Your task to perform on an android device: find which apps use the phone's location Image 0: 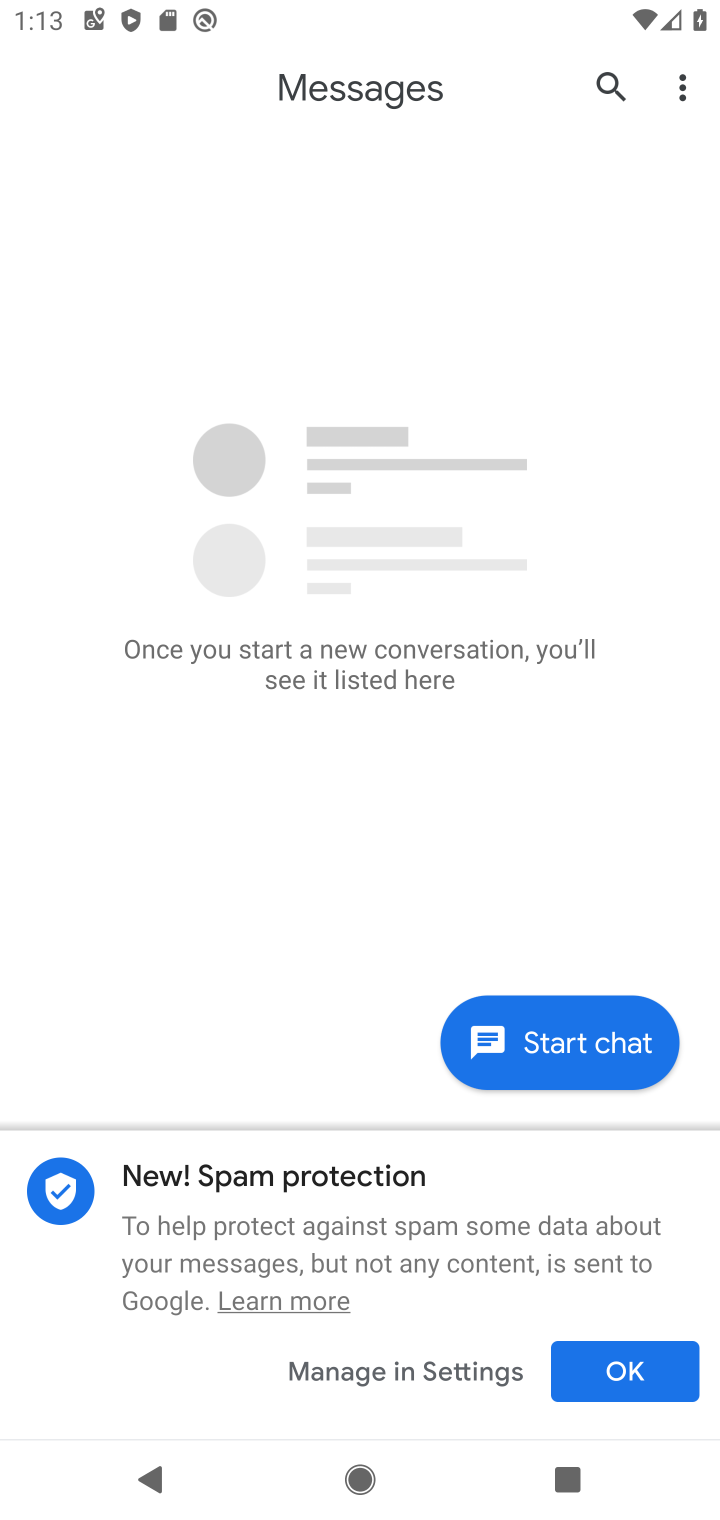
Step 0: press home button
Your task to perform on an android device: find which apps use the phone's location Image 1: 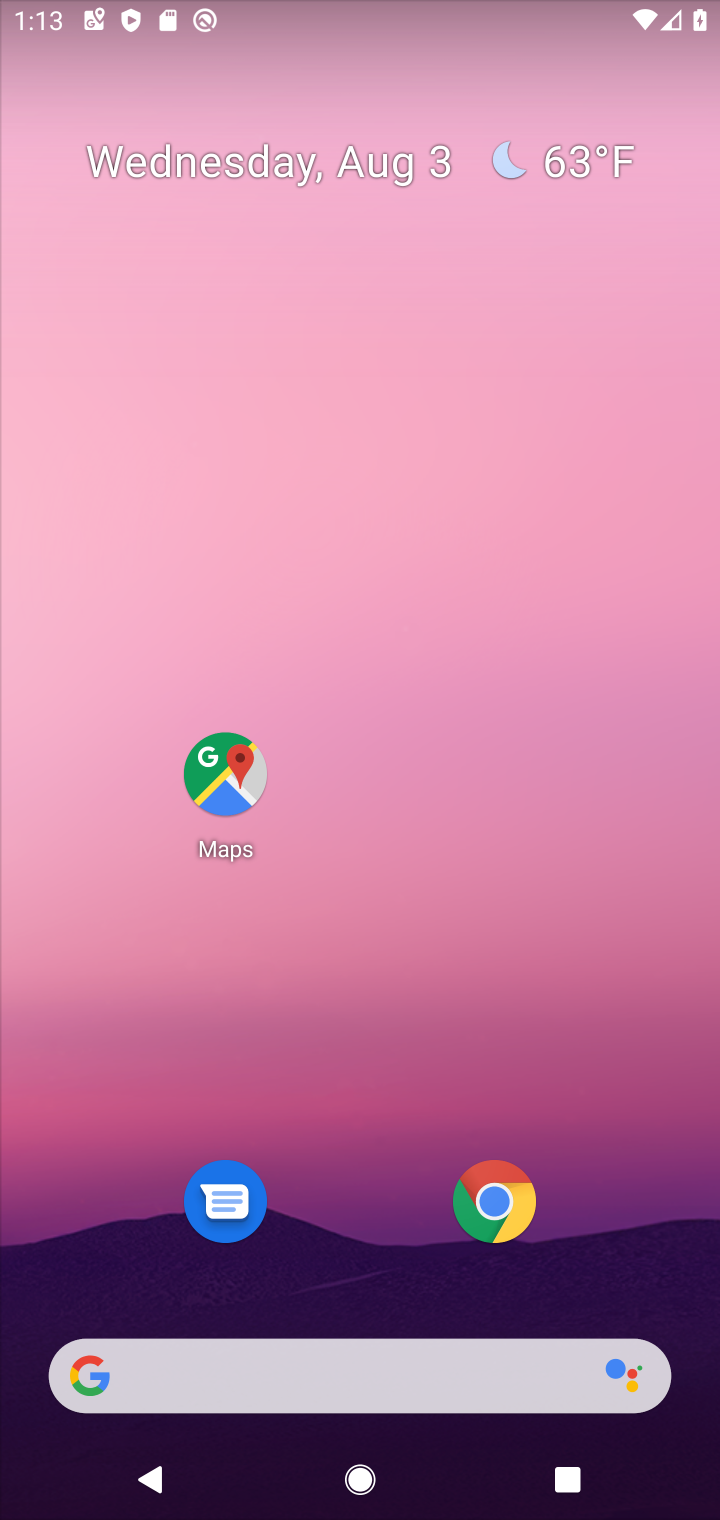
Step 1: drag from (416, 1043) to (604, 87)
Your task to perform on an android device: find which apps use the phone's location Image 2: 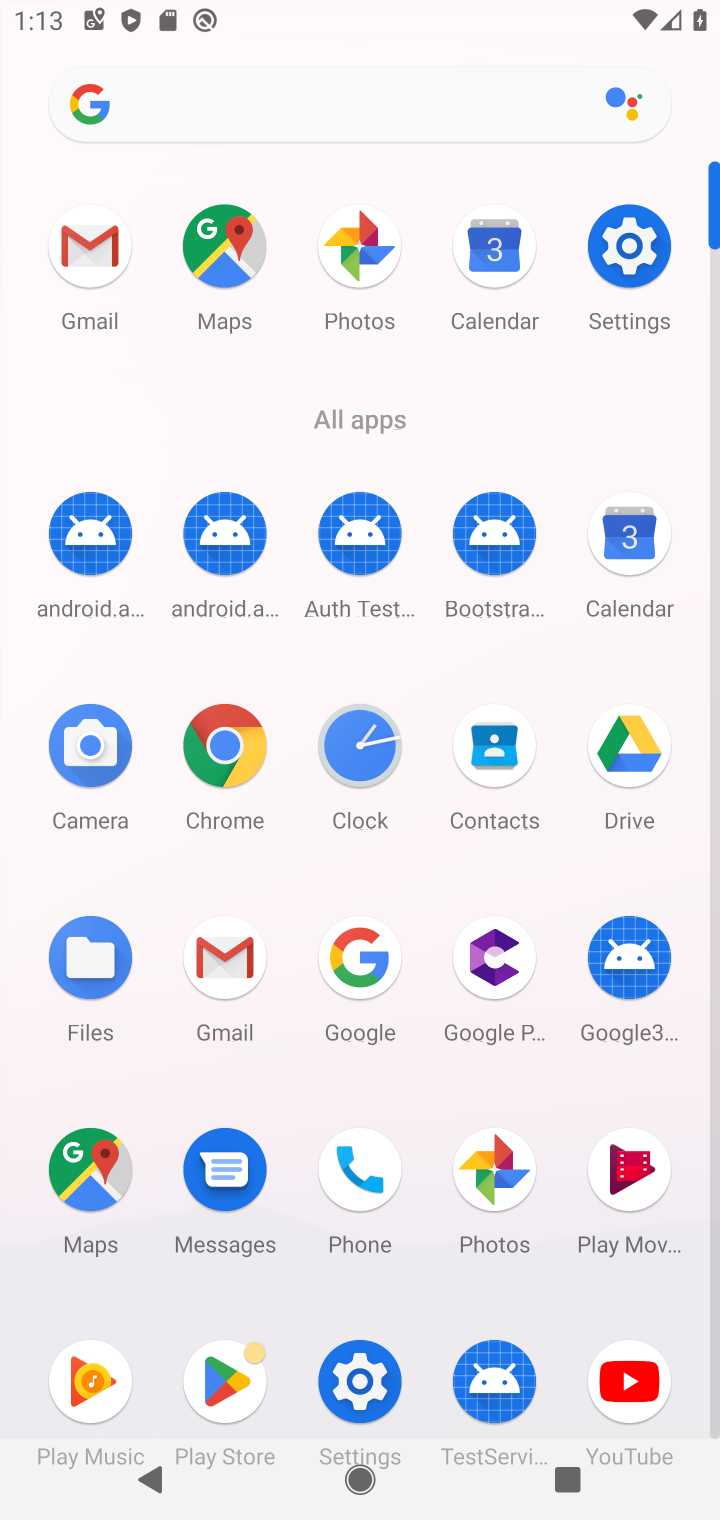
Step 2: click (621, 261)
Your task to perform on an android device: find which apps use the phone's location Image 3: 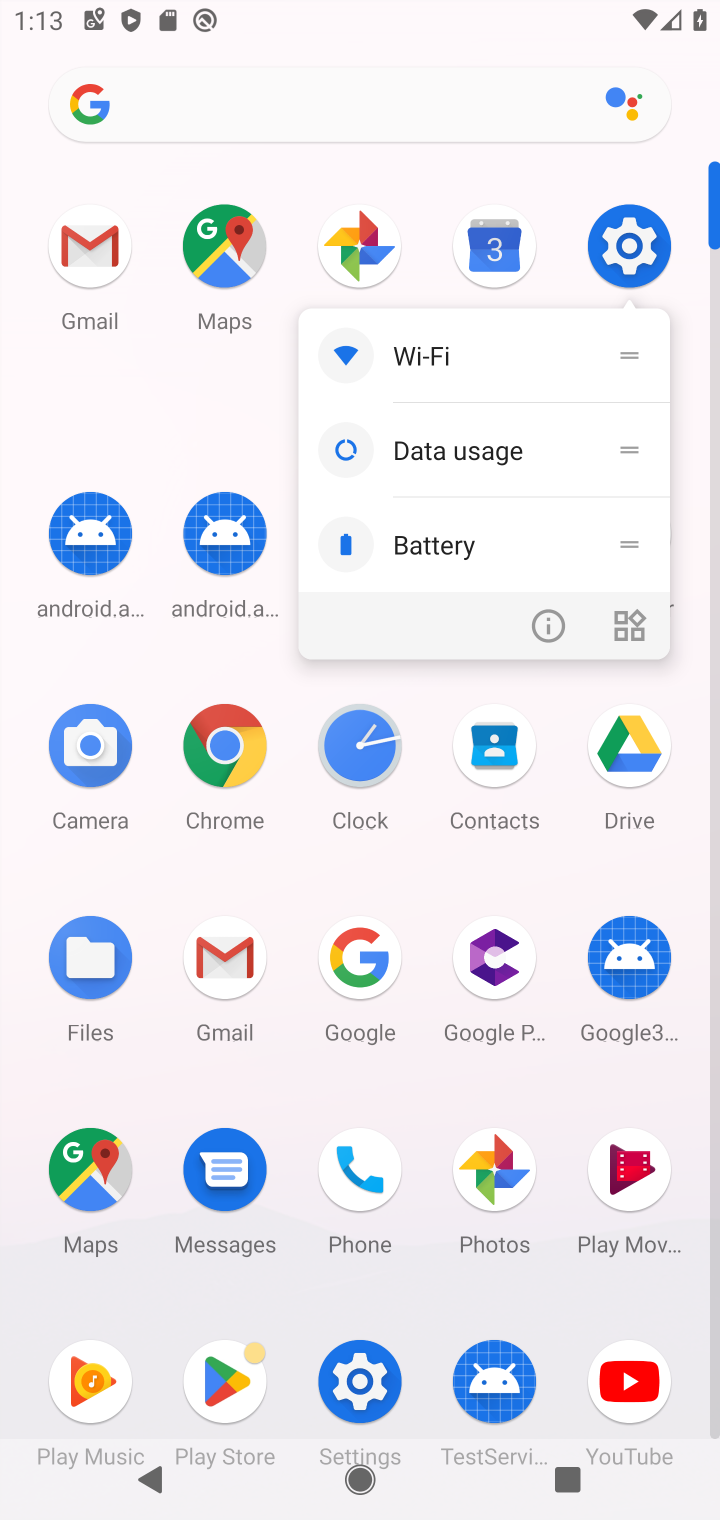
Step 3: click (643, 229)
Your task to perform on an android device: find which apps use the phone's location Image 4: 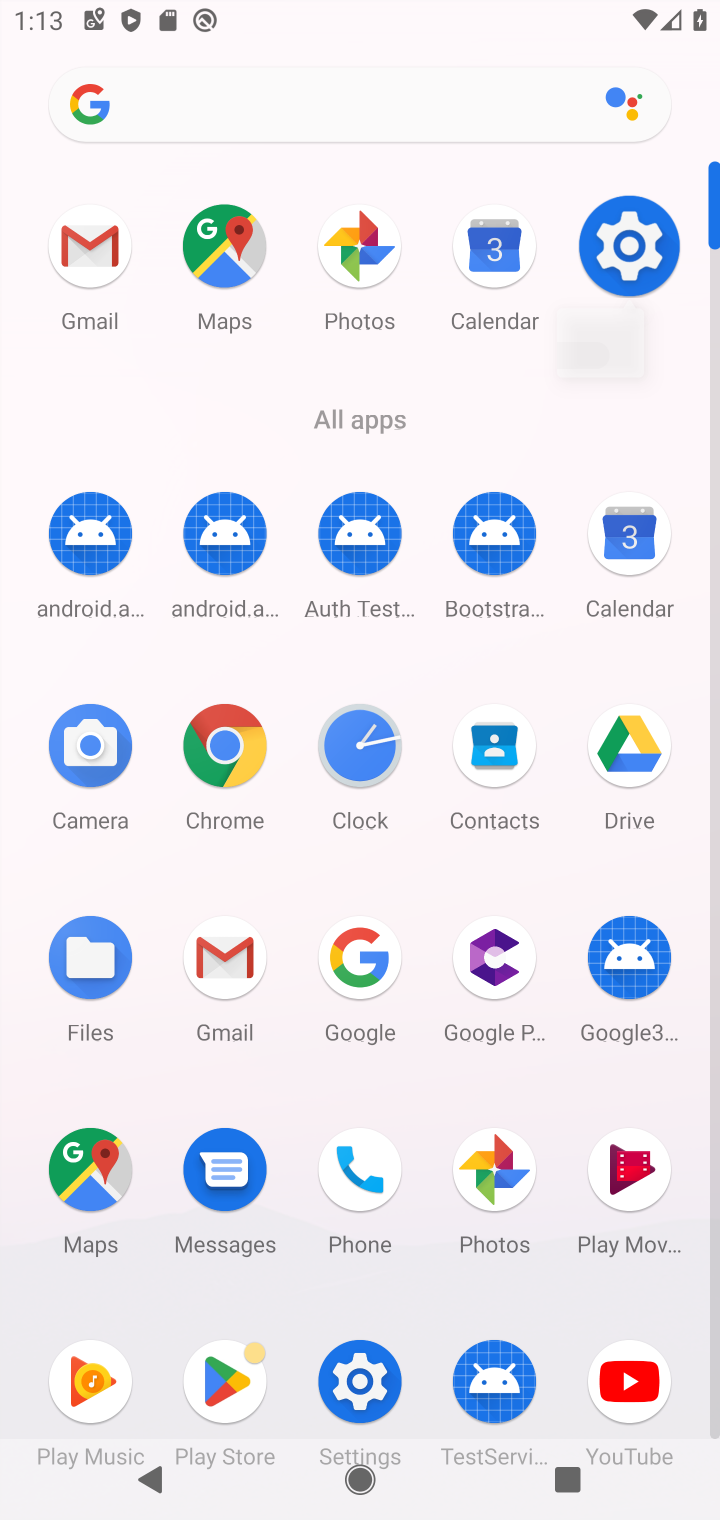
Step 4: click (643, 229)
Your task to perform on an android device: find which apps use the phone's location Image 5: 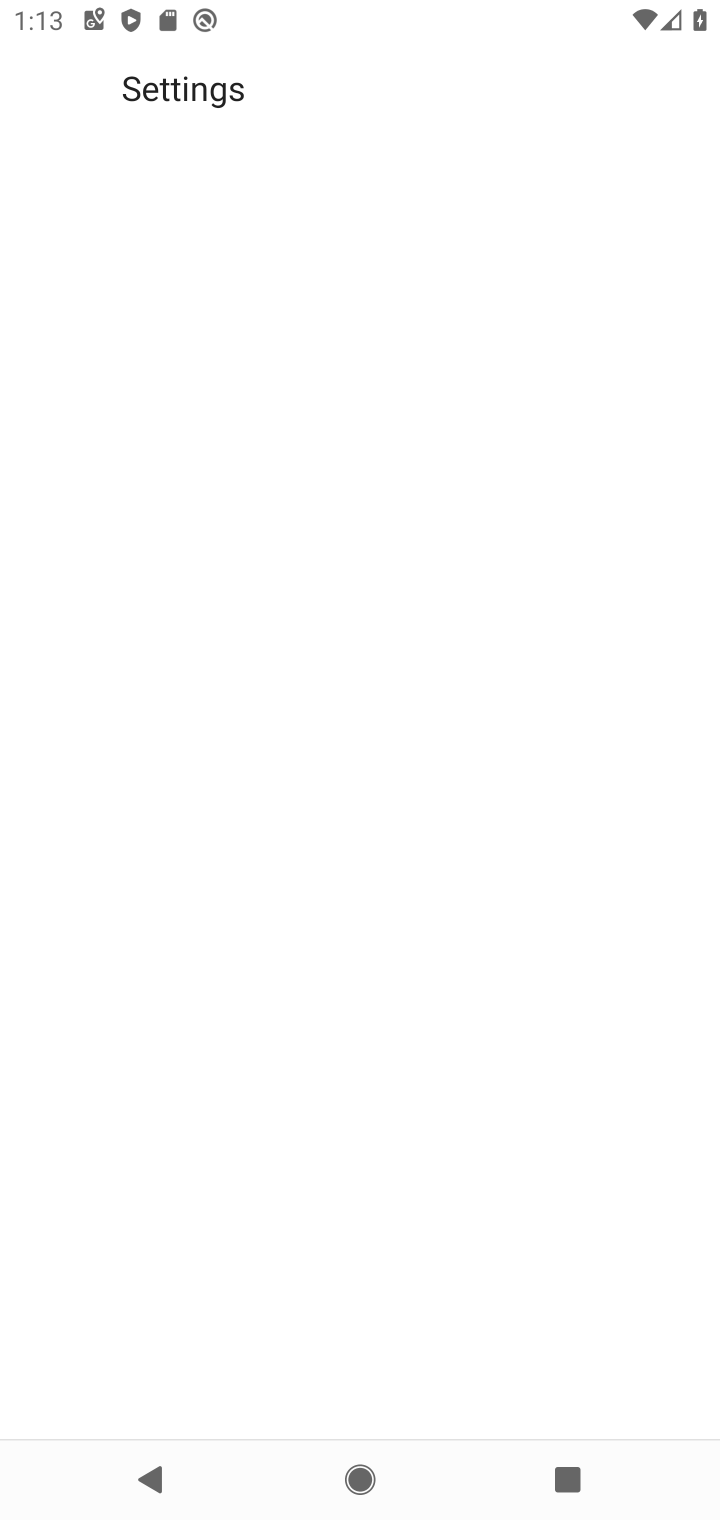
Step 5: click (643, 229)
Your task to perform on an android device: find which apps use the phone's location Image 6: 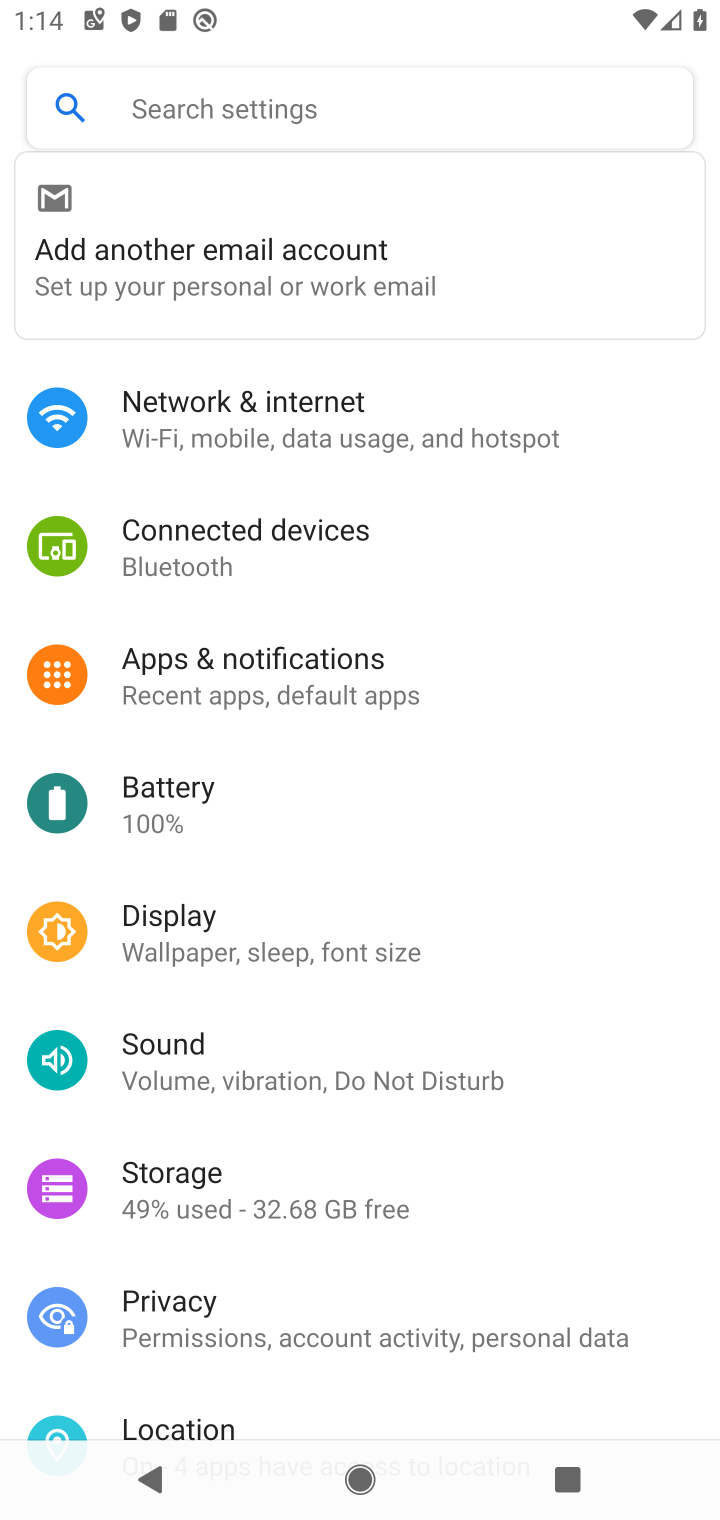
Step 6: drag from (410, 1383) to (689, 604)
Your task to perform on an android device: find which apps use the phone's location Image 7: 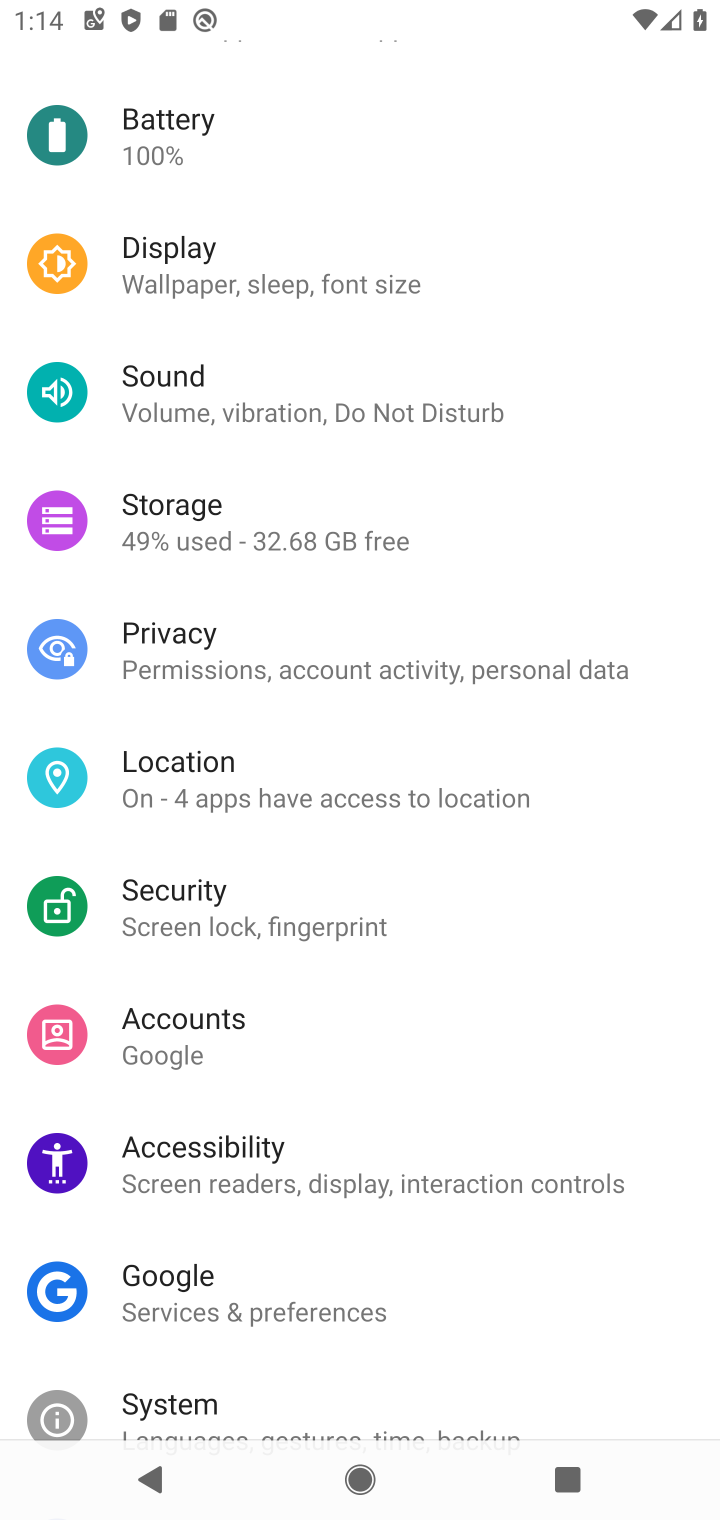
Step 7: click (211, 772)
Your task to perform on an android device: find which apps use the phone's location Image 8: 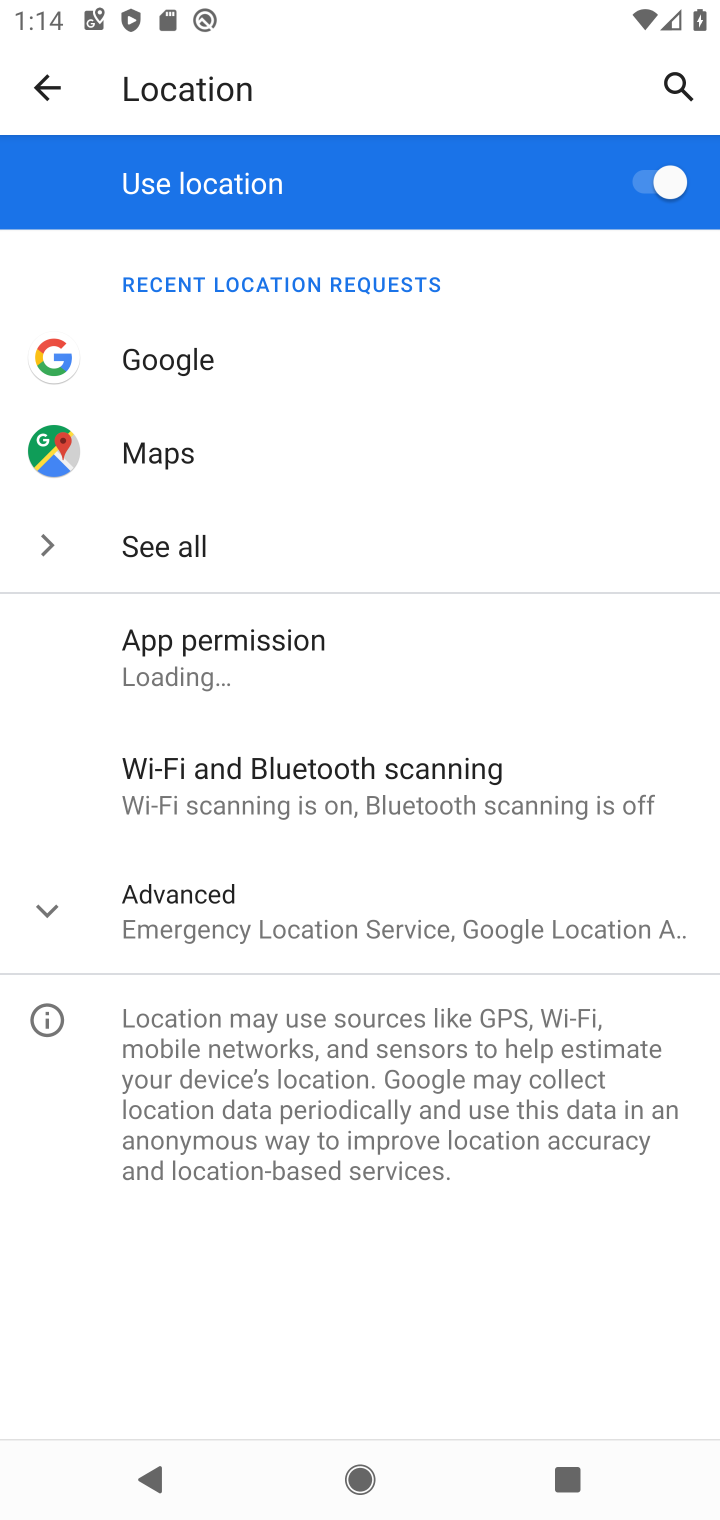
Step 8: click (267, 910)
Your task to perform on an android device: find which apps use the phone's location Image 9: 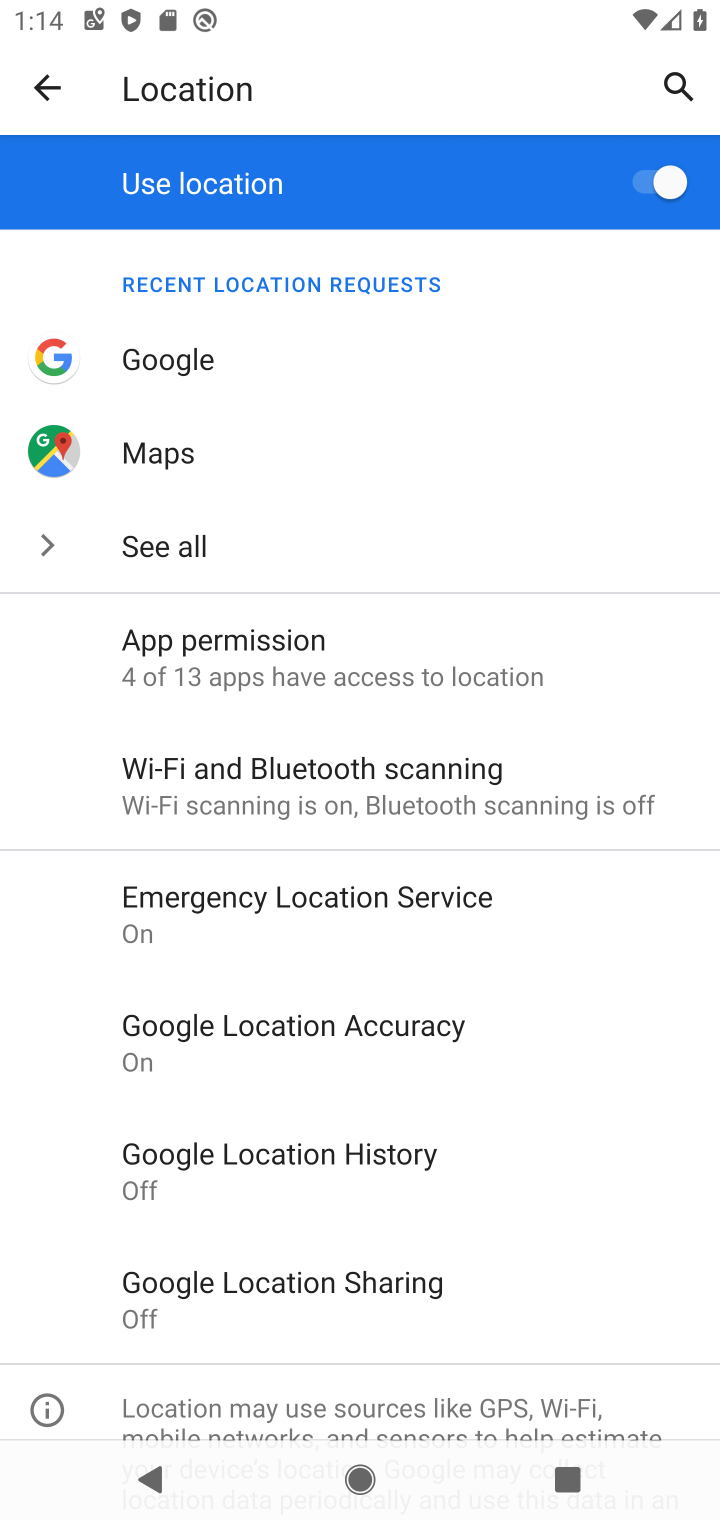
Step 9: drag from (493, 479) to (397, 1310)
Your task to perform on an android device: find which apps use the phone's location Image 10: 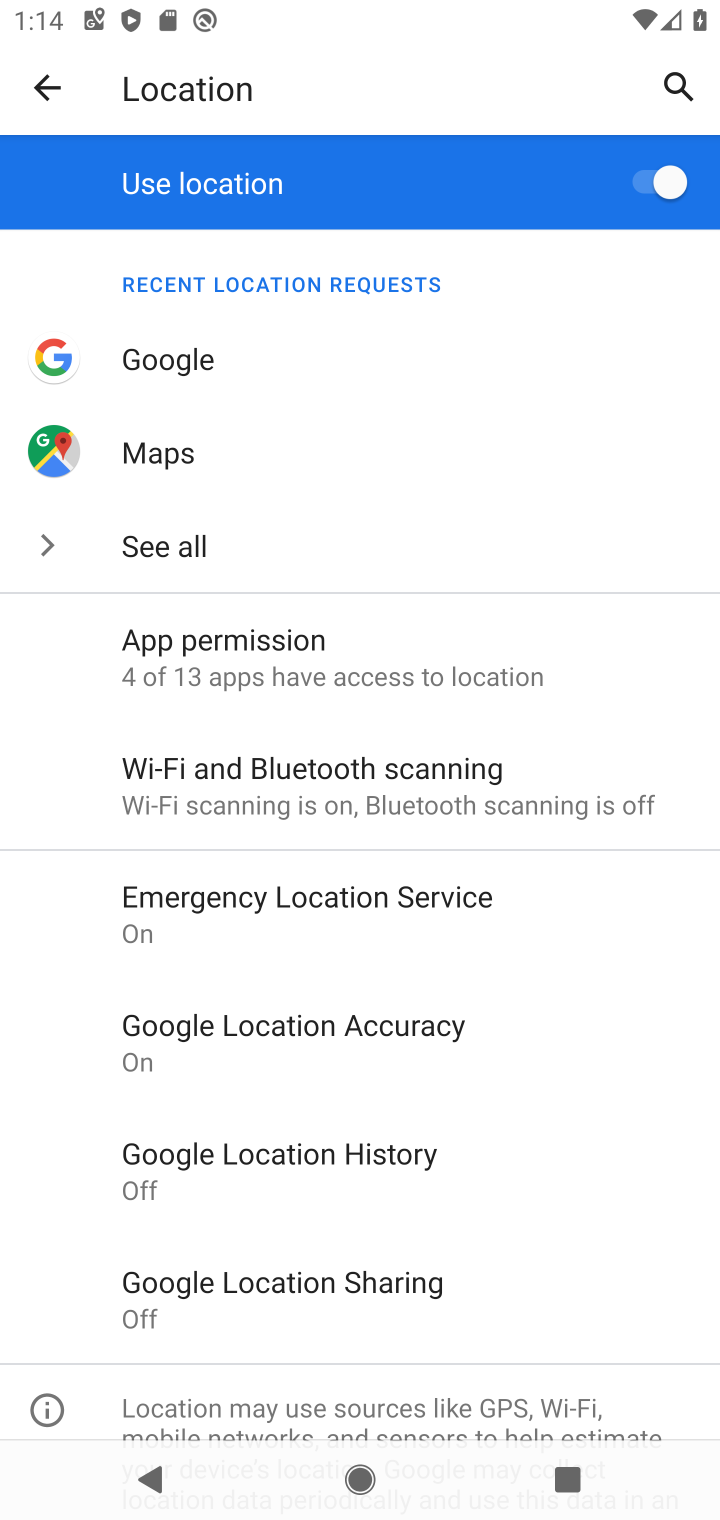
Step 10: click (178, 535)
Your task to perform on an android device: find which apps use the phone's location Image 11: 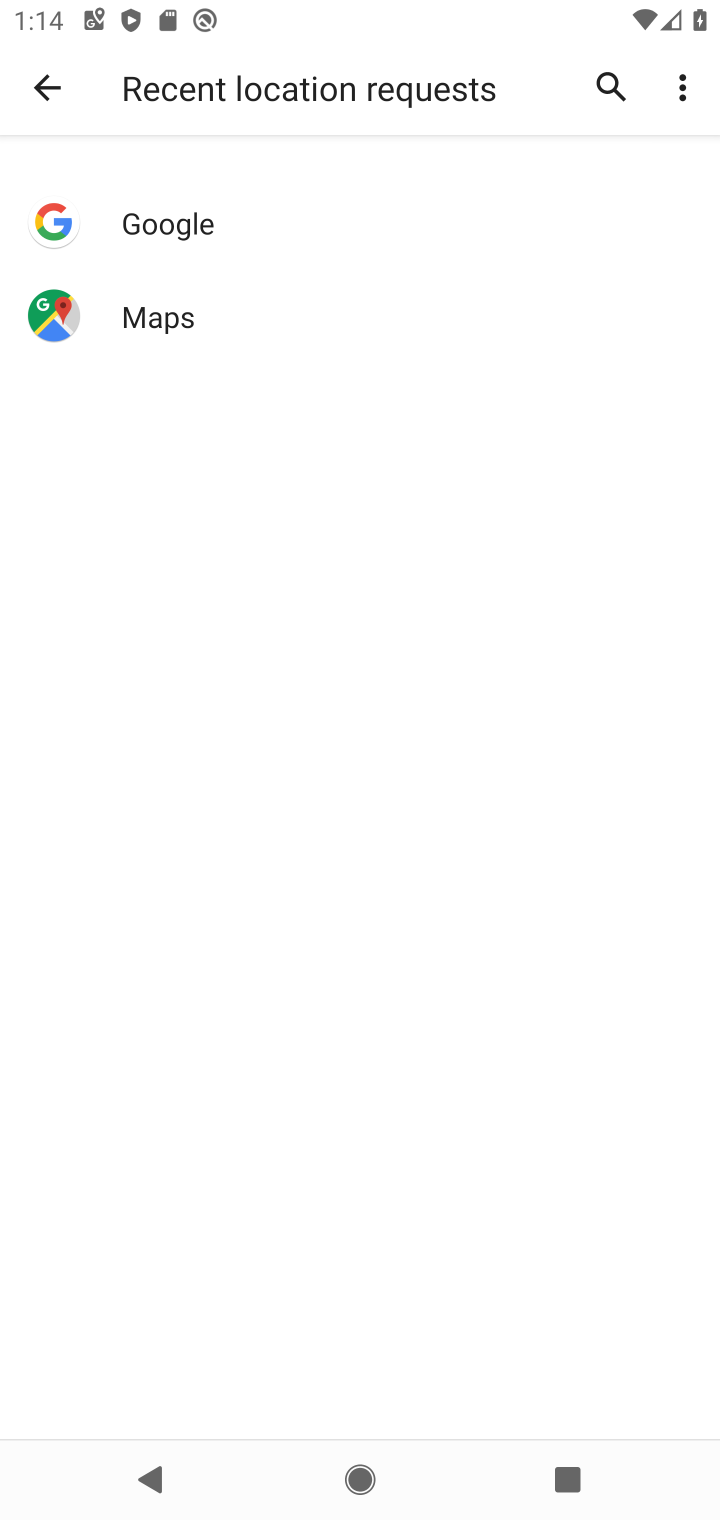
Step 11: click (47, 92)
Your task to perform on an android device: find which apps use the phone's location Image 12: 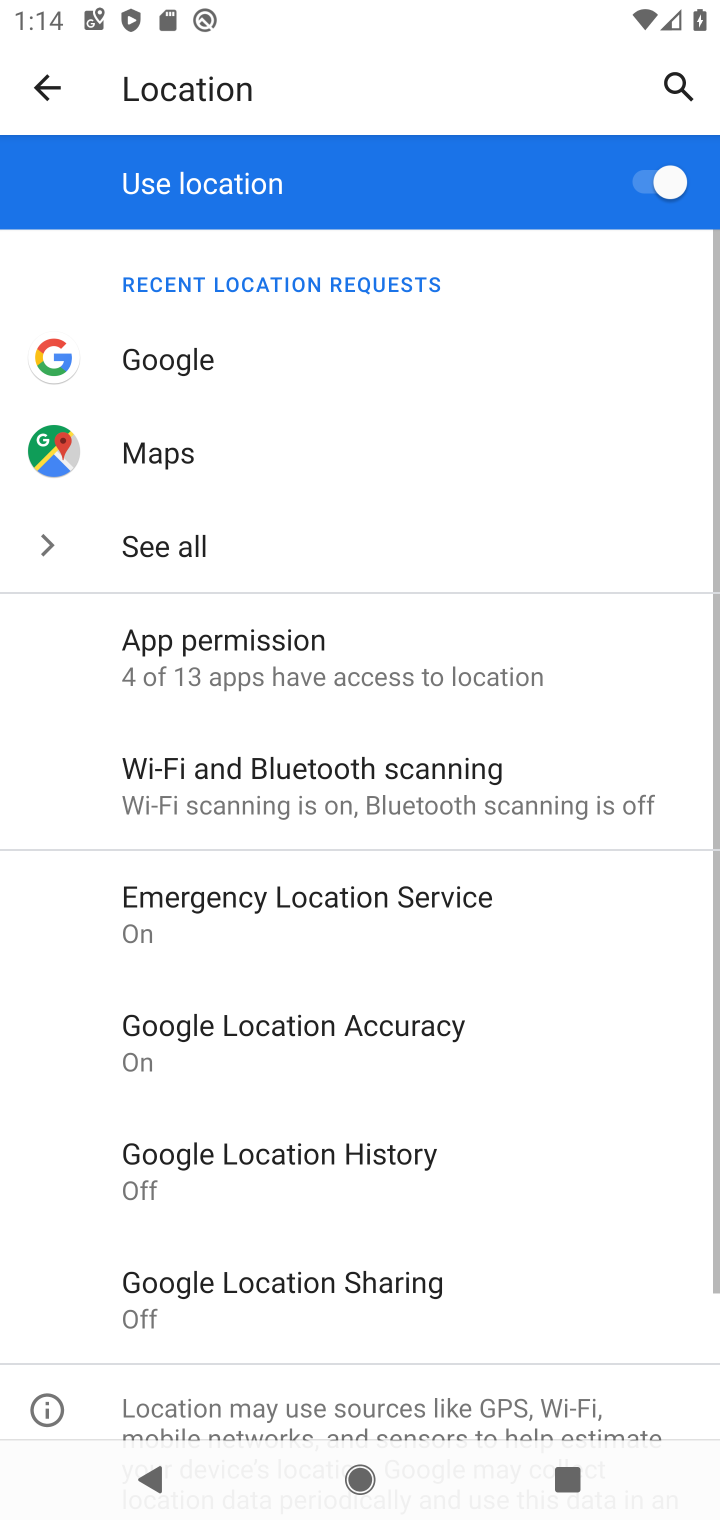
Step 12: click (176, 652)
Your task to perform on an android device: find which apps use the phone's location Image 13: 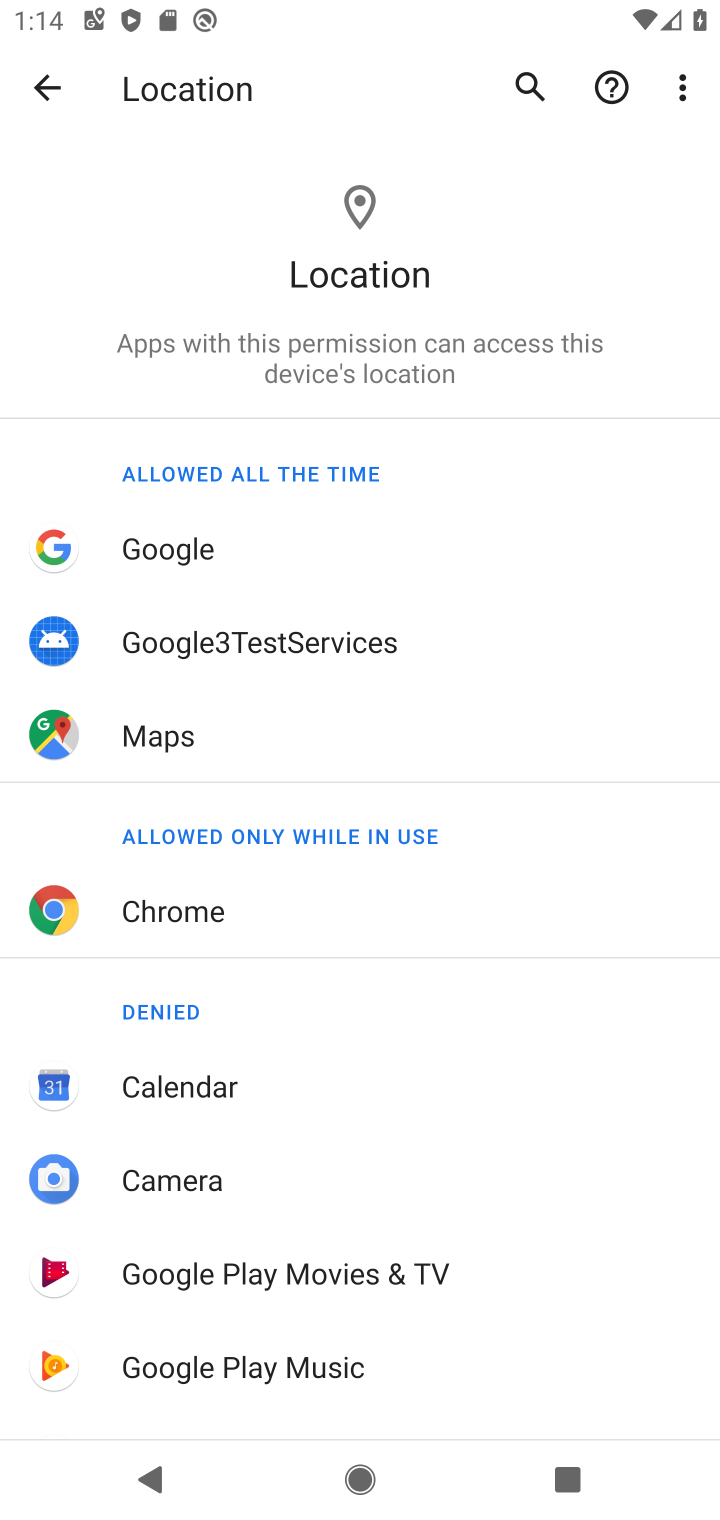
Step 13: drag from (451, 1384) to (690, 173)
Your task to perform on an android device: find which apps use the phone's location Image 14: 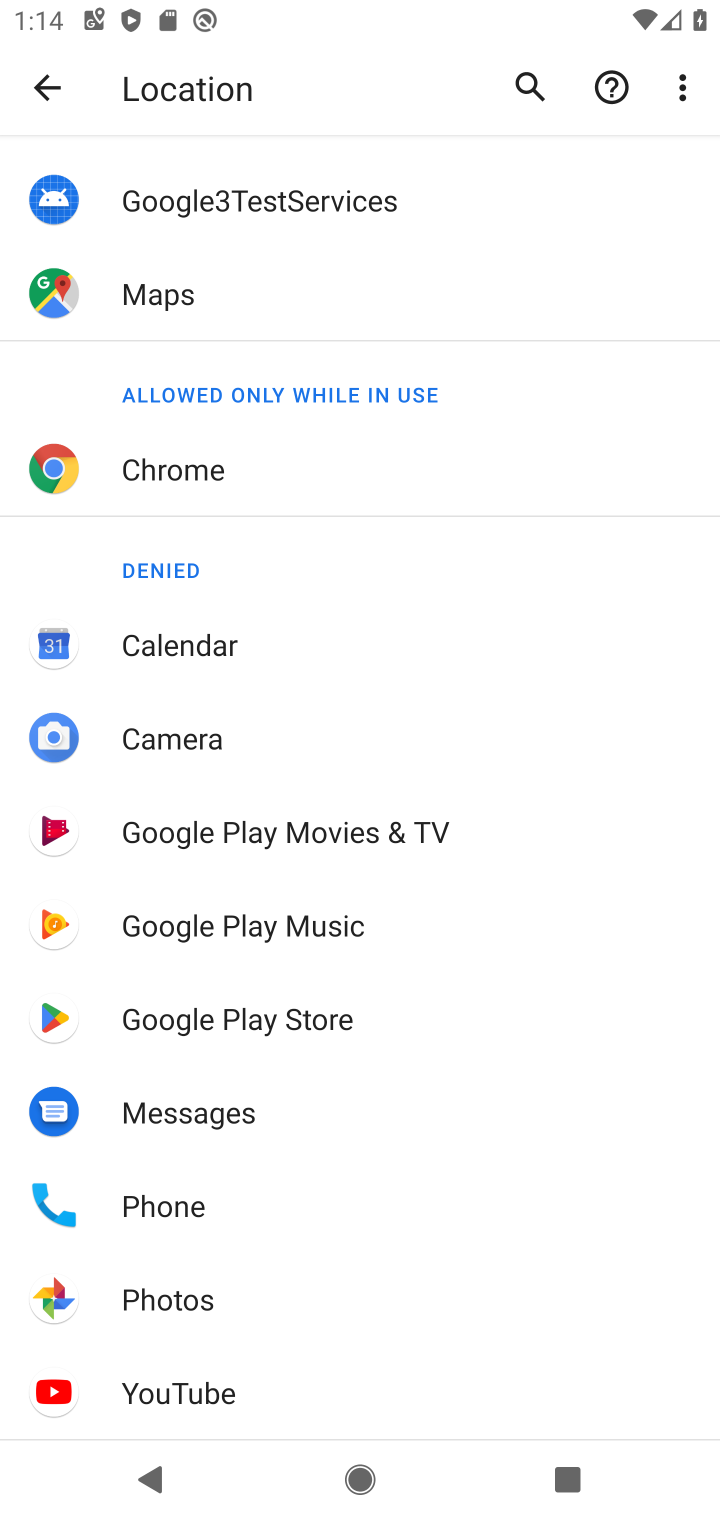
Step 14: click (174, 1214)
Your task to perform on an android device: find which apps use the phone's location Image 15: 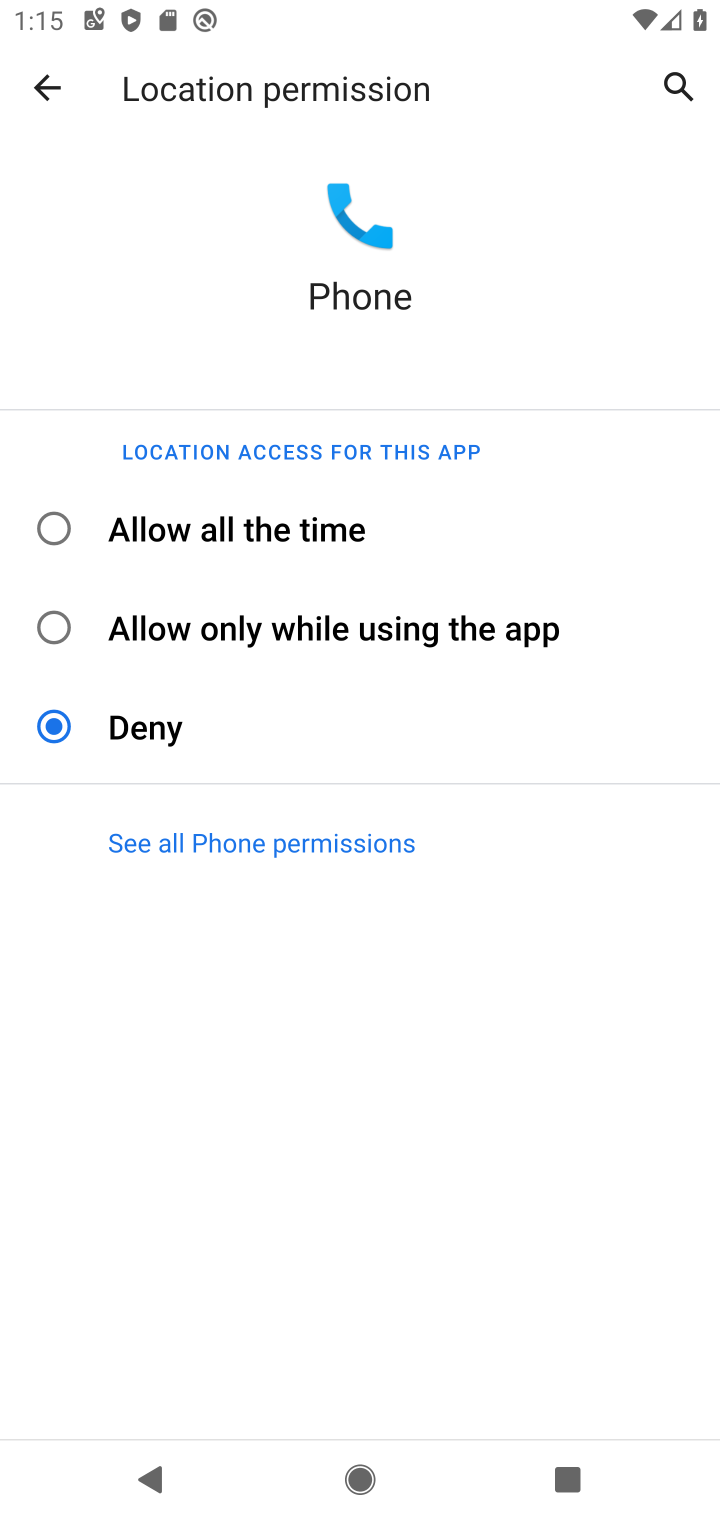
Step 15: task complete